Your task to perform on an android device: Open Amazon Image 0: 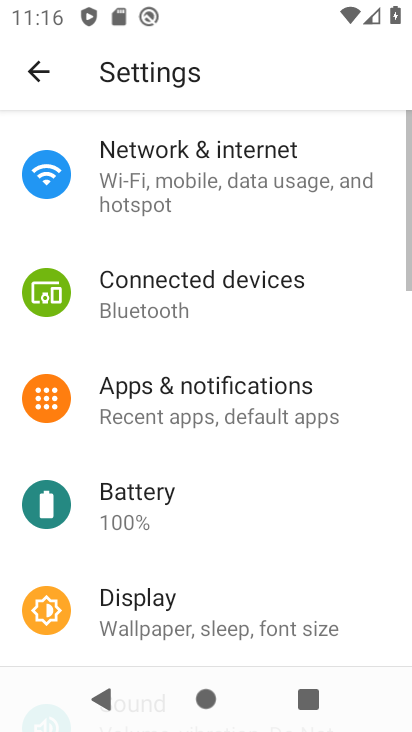
Step 0: press home button
Your task to perform on an android device: Open Amazon Image 1: 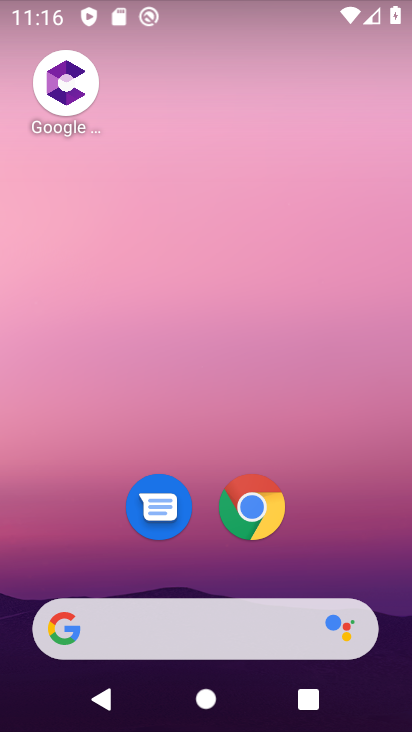
Step 1: click (262, 492)
Your task to perform on an android device: Open Amazon Image 2: 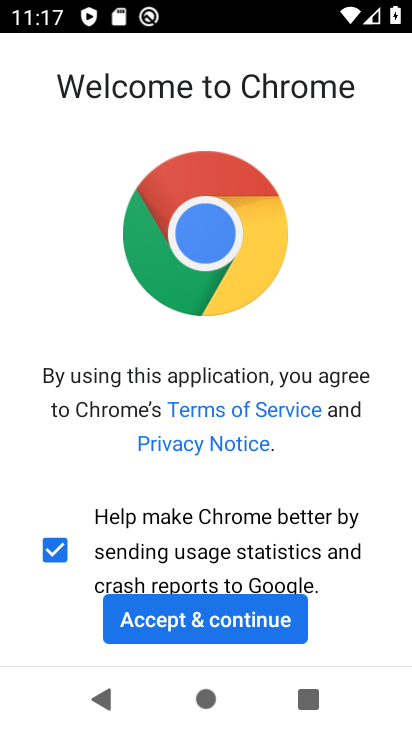
Step 2: click (183, 622)
Your task to perform on an android device: Open Amazon Image 3: 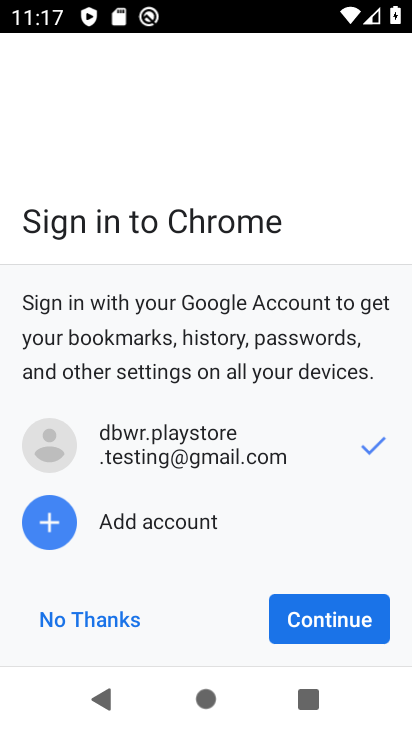
Step 3: click (313, 615)
Your task to perform on an android device: Open Amazon Image 4: 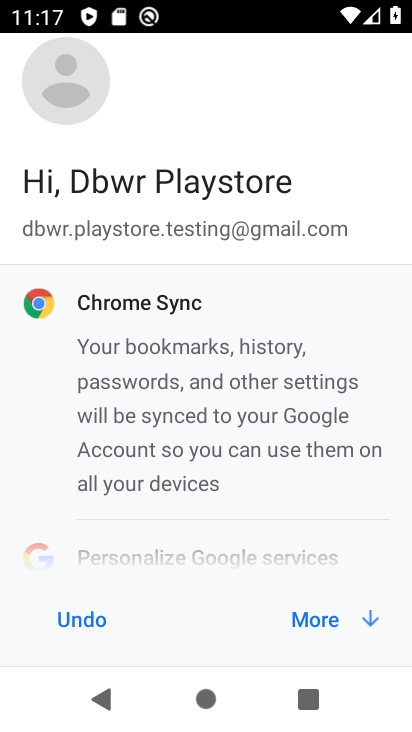
Step 4: click (313, 615)
Your task to perform on an android device: Open Amazon Image 5: 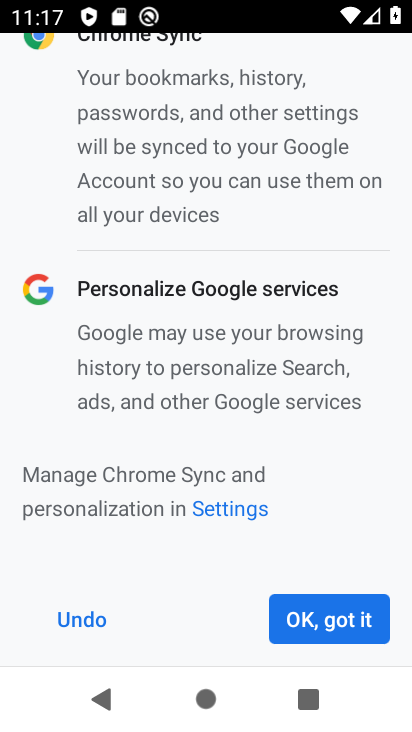
Step 5: click (313, 615)
Your task to perform on an android device: Open Amazon Image 6: 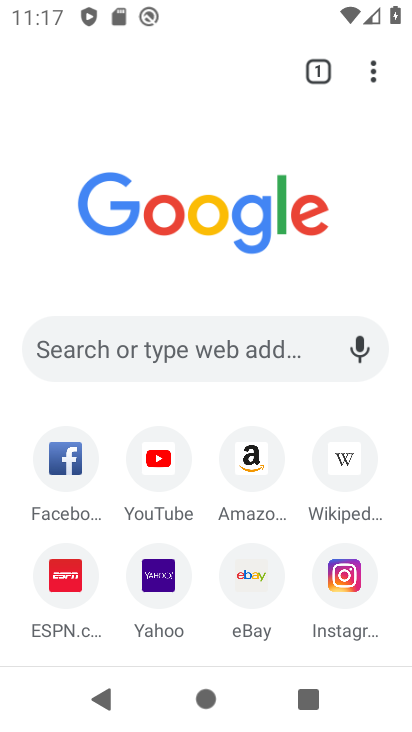
Step 6: click (256, 456)
Your task to perform on an android device: Open Amazon Image 7: 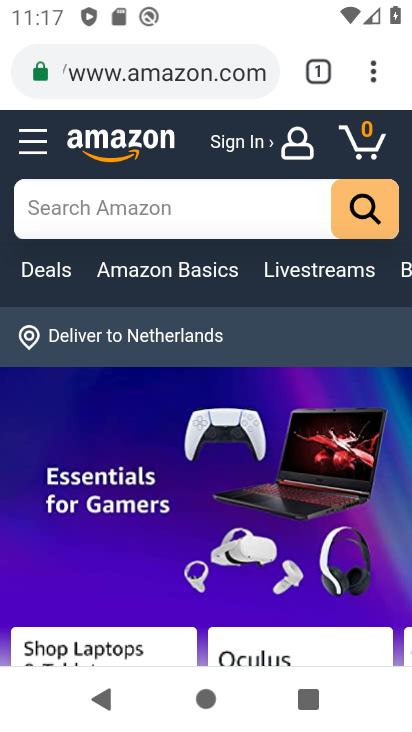
Step 7: task complete